Your task to perform on an android device: What's the weather going to be tomorrow? Image 0: 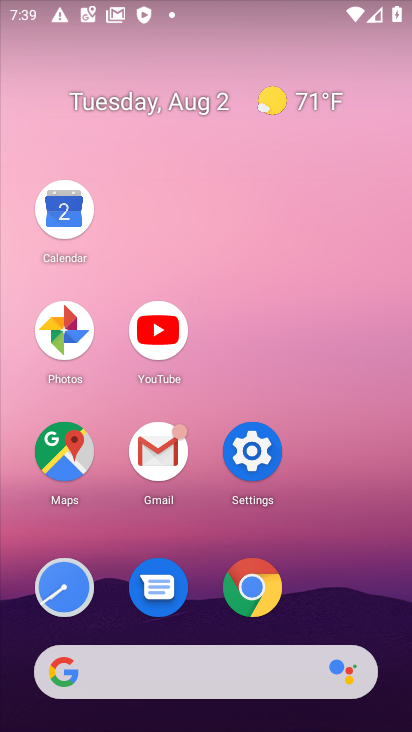
Step 0: click (151, 656)
Your task to perform on an android device: What's the weather going to be tomorrow? Image 1: 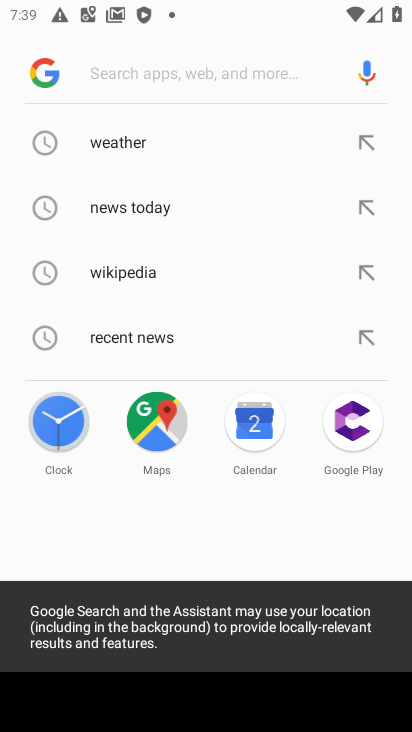
Step 1: click (108, 146)
Your task to perform on an android device: What's the weather going to be tomorrow? Image 2: 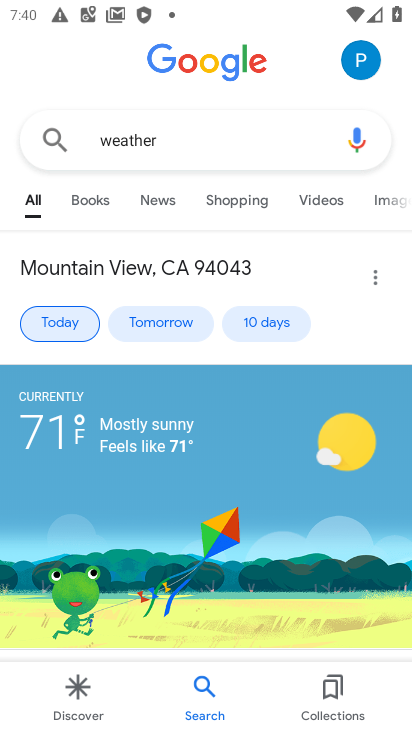
Step 2: click (165, 316)
Your task to perform on an android device: What's the weather going to be tomorrow? Image 3: 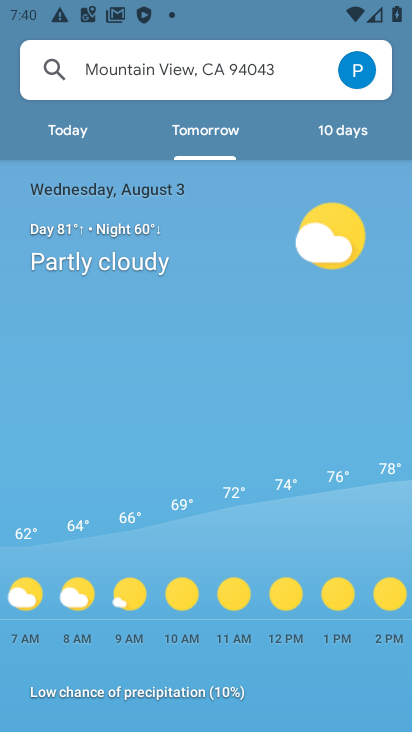
Step 3: task complete